Your task to perform on an android device: toggle wifi Image 0: 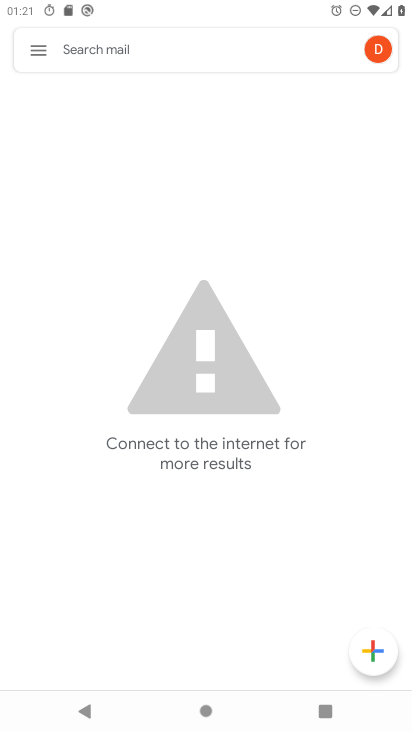
Step 0: press home button
Your task to perform on an android device: toggle wifi Image 1: 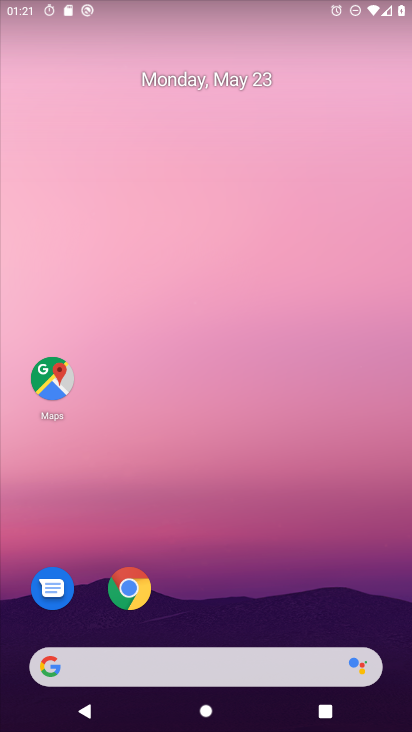
Step 1: drag from (308, 691) to (266, 93)
Your task to perform on an android device: toggle wifi Image 2: 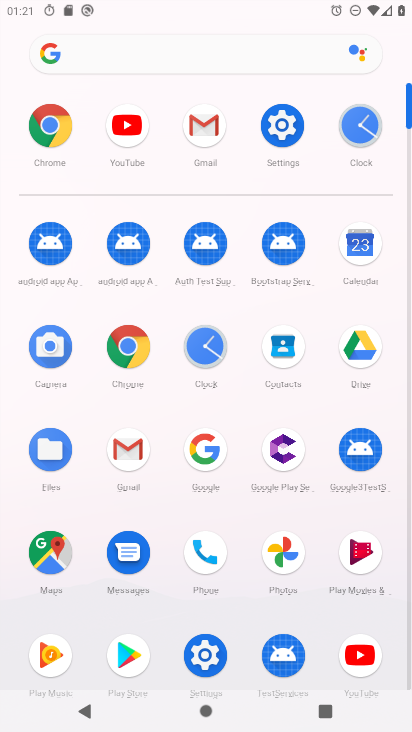
Step 2: click (284, 133)
Your task to perform on an android device: toggle wifi Image 3: 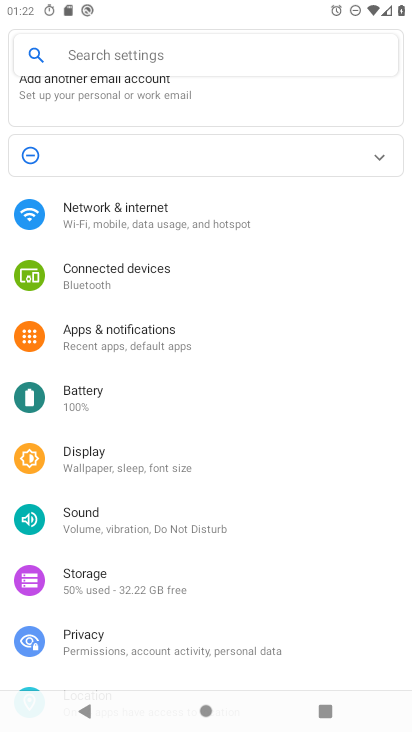
Step 3: click (185, 228)
Your task to perform on an android device: toggle wifi Image 4: 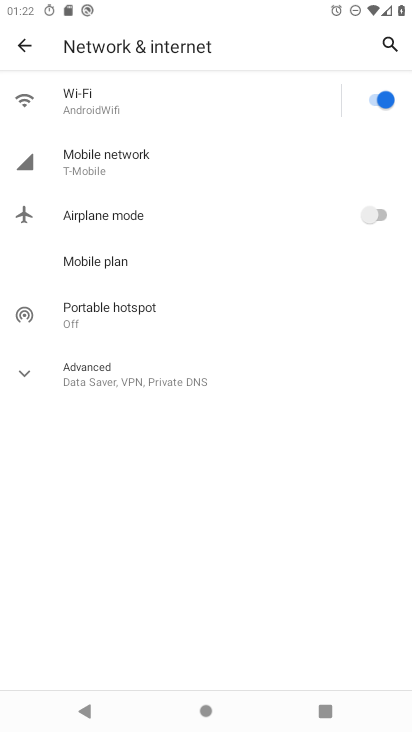
Step 4: click (163, 111)
Your task to perform on an android device: toggle wifi Image 5: 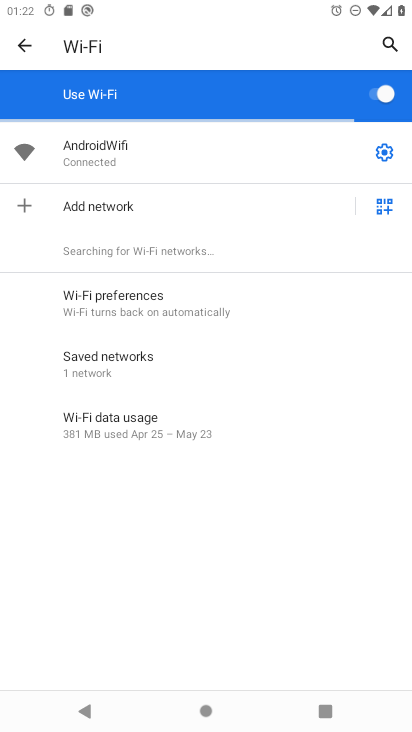
Step 5: task complete